Your task to perform on an android device: When is my next appointment? Image 0: 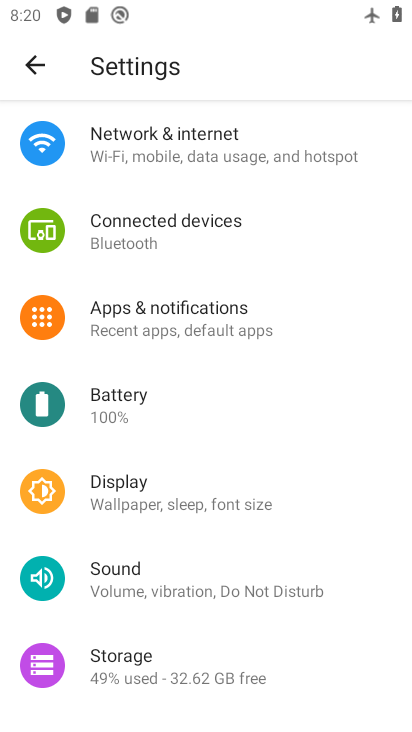
Step 0: press home button
Your task to perform on an android device: When is my next appointment? Image 1: 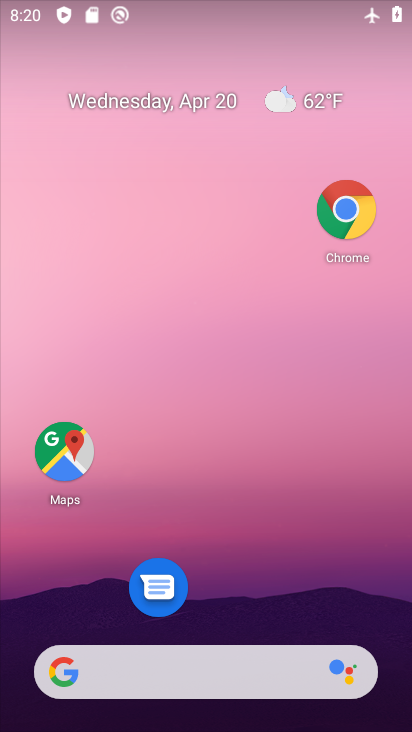
Step 1: click (114, 98)
Your task to perform on an android device: When is my next appointment? Image 2: 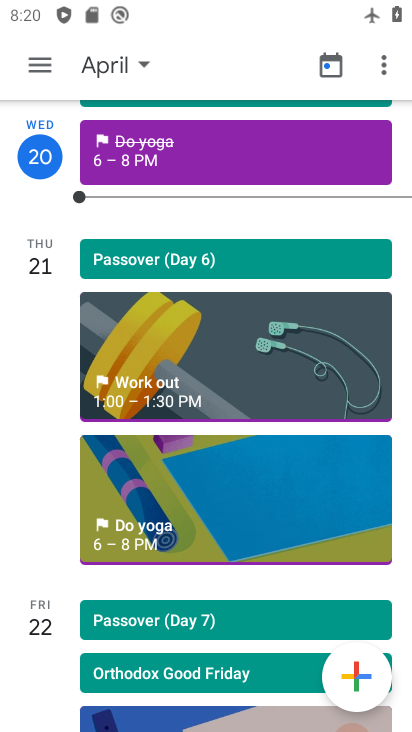
Step 2: click (57, 71)
Your task to perform on an android device: When is my next appointment? Image 3: 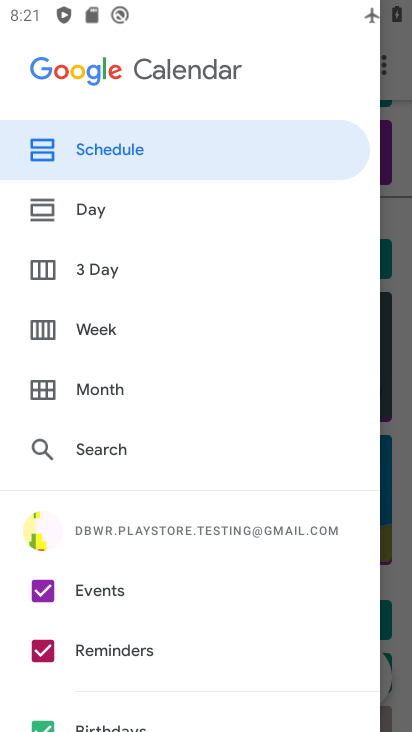
Step 3: task complete